Your task to perform on an android device: Toggle the flashlight Image 0: 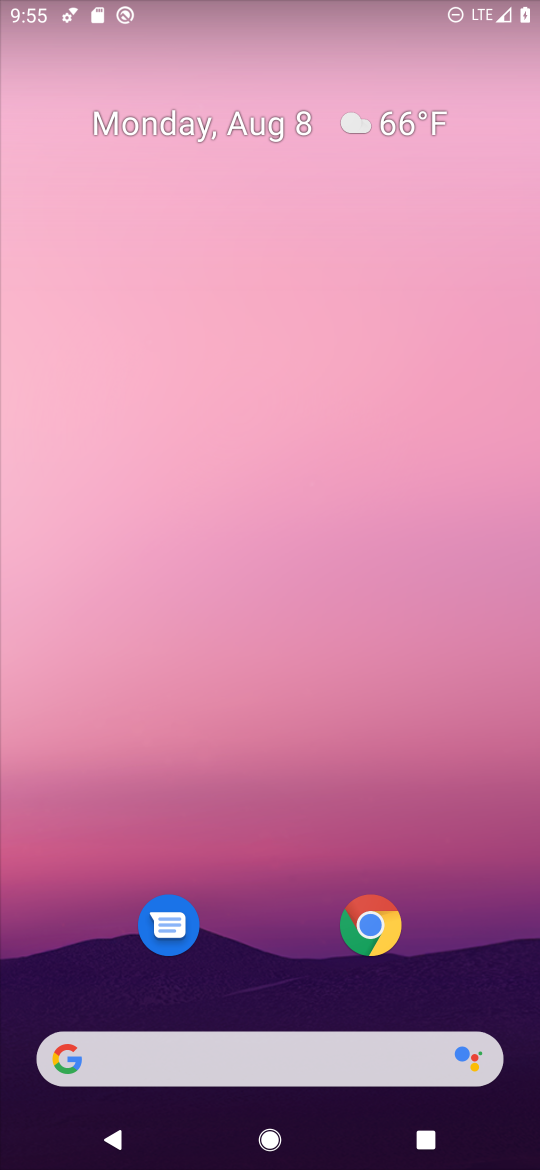
Step 0: press home button
Your task to perform on an android device: Toggle the flashlight Image 1: 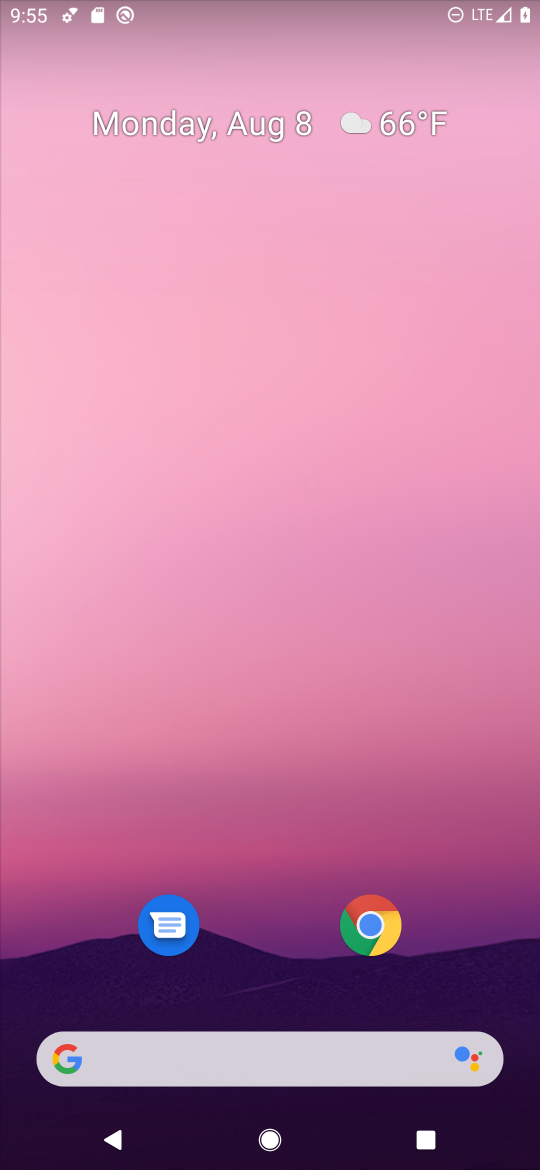
Step 1: drag from (425, 938) to (449, 75)
Your task to perform on an android device: Toggle the flashlight Image 2: 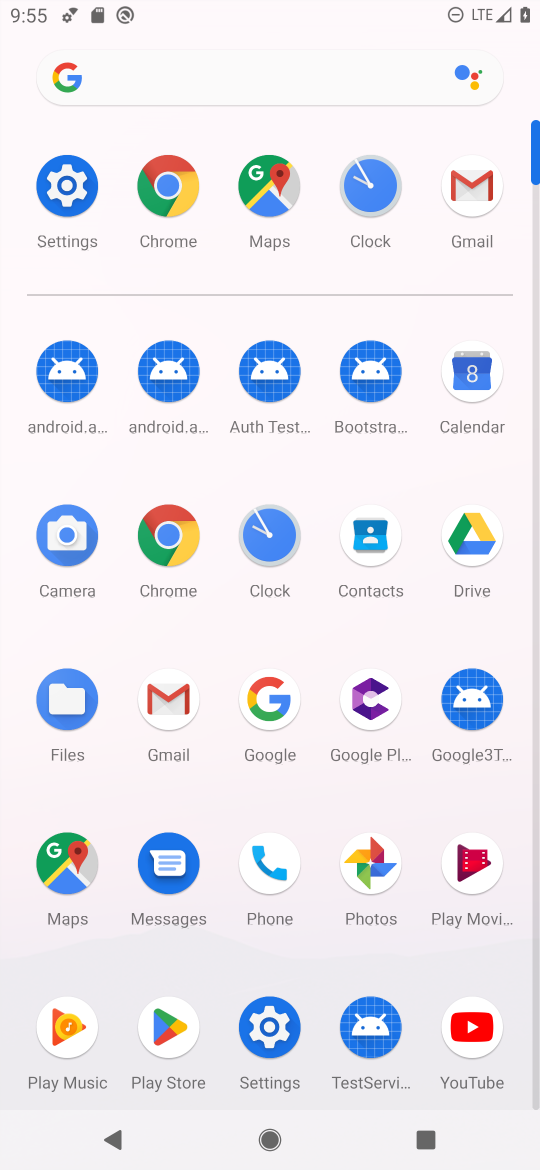
Step 2: click (277, 1022)
Your task to perform on an android device: Toggle the flashlight Image 3: 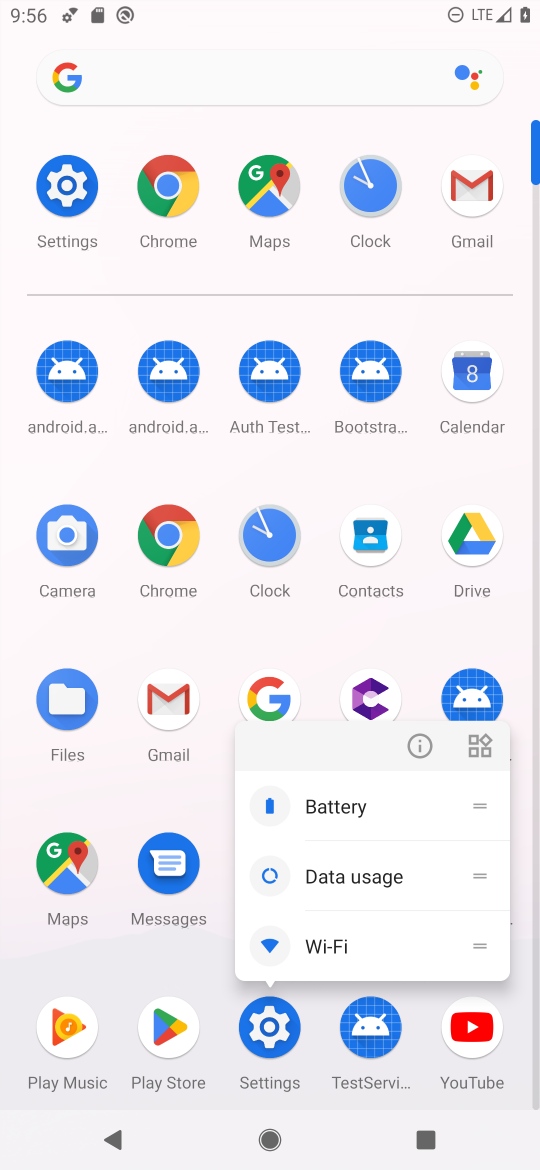
Step 3: click (268, 1021)
Your task to perform on an android device: Toggle the flashlight Image 4: 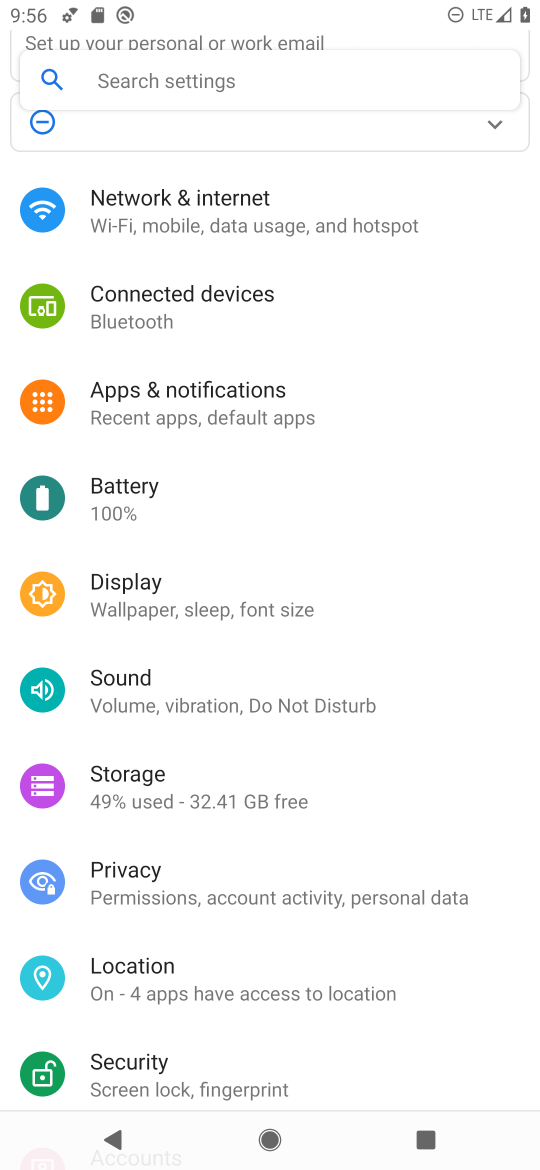
Step 4: click (218, 600)
Your task to perform on an android device: Toggle the flashlight Image 5: 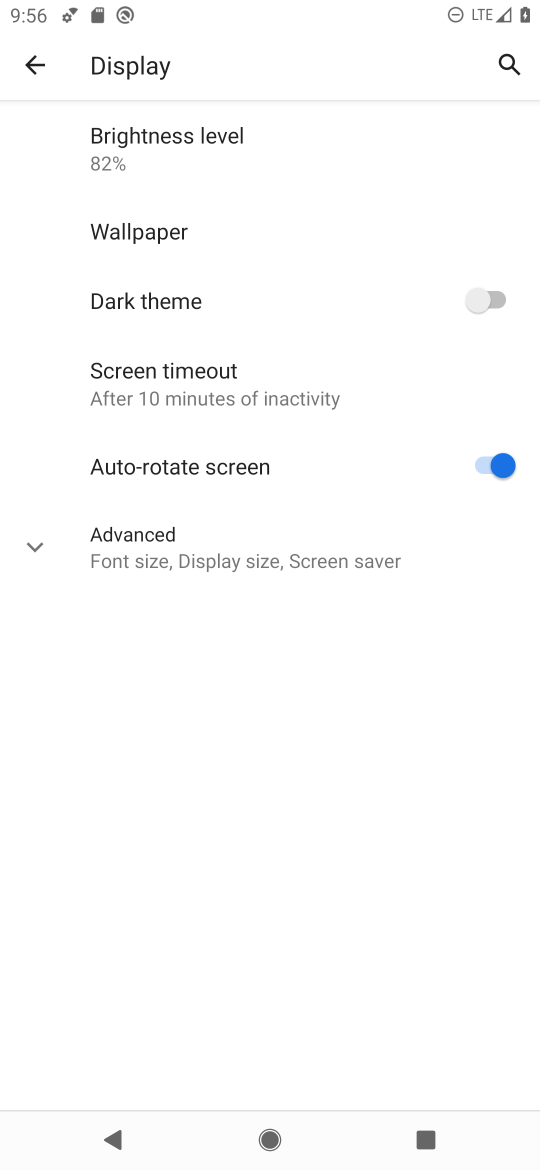
Step 5: click (182, 388)
Your task to perform on an android device: Toggle the flashlight Image 6: 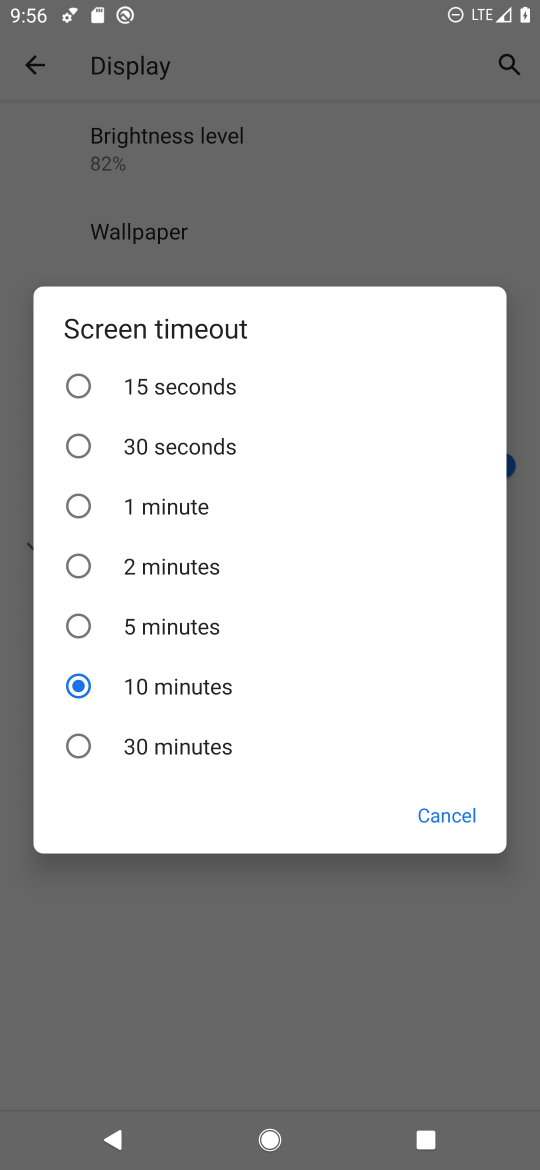
Step 6: task complete